Your task to perform on an android device: Go to internet settings Image 0: 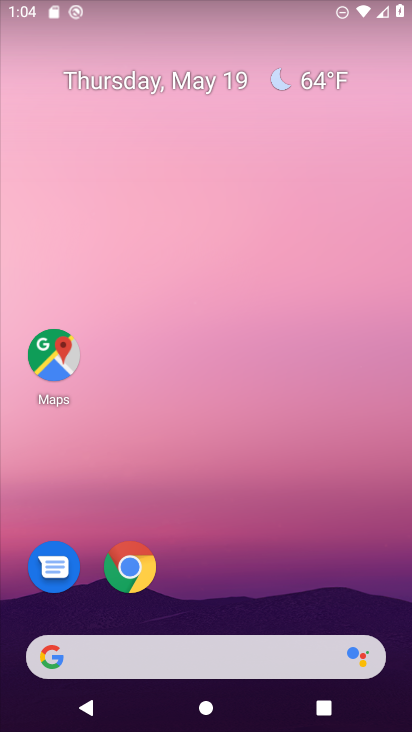
Step 0: drag from (202, 362) to (196, 68)
Your task to perform on an android device: Go to internet settings Image 1: 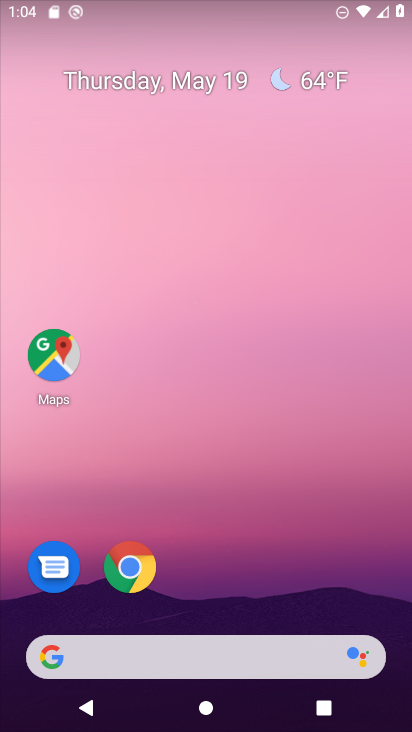
Step 1: drag from (337, 526) to (331, 143)
Your task to perform on an android device: Go to internet settings Image 2: 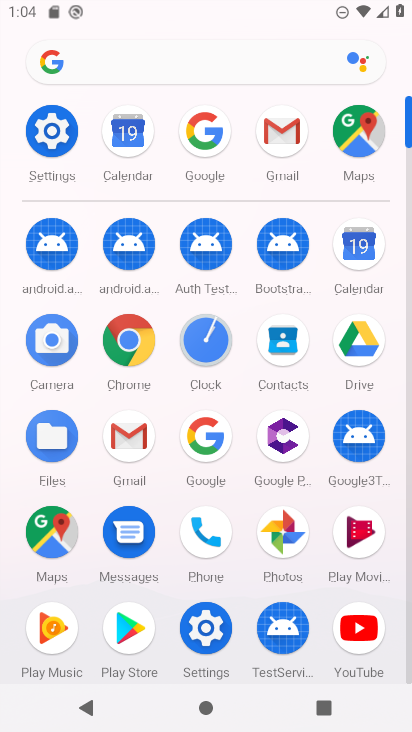
Step 2: click (62, 129)
Your task to perform on an android device: Go to internet settings Image 3: 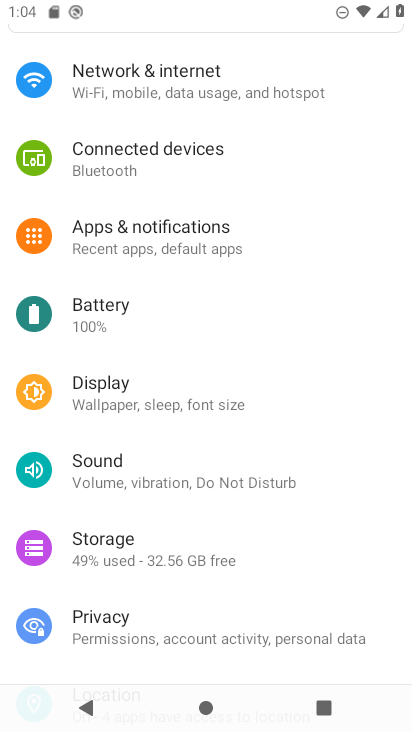
Step 3: click (144, 85)
Your task to perform on an android device: Go to internet settings Image 4: 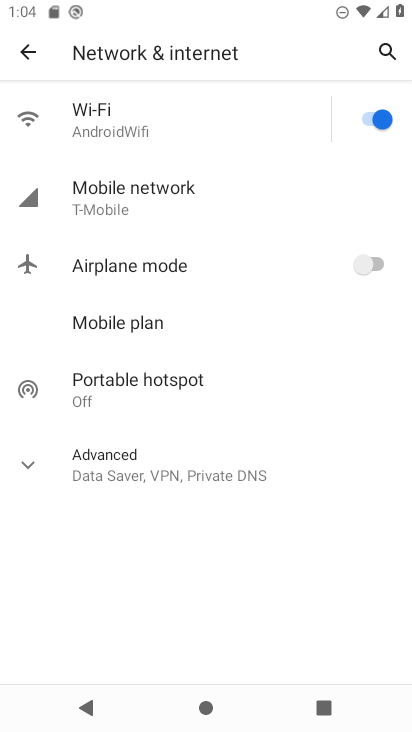
Step 4: task complete